Your task to perform on an android device: empty trash in the gmail app Image 0: 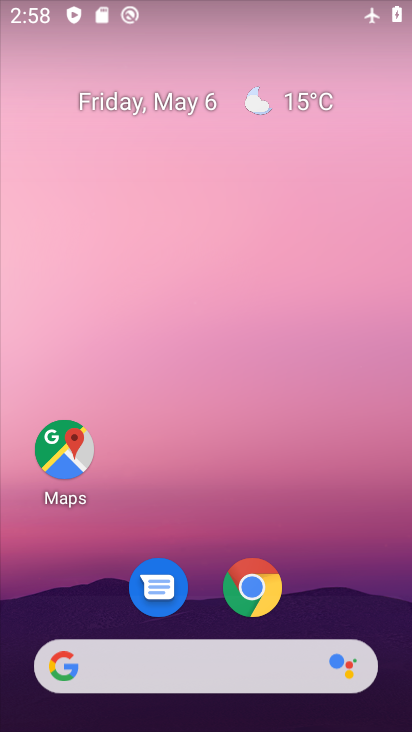
Step 0: press home button
Your task to perform on an android device: empty trash in the gmail app Image 1: 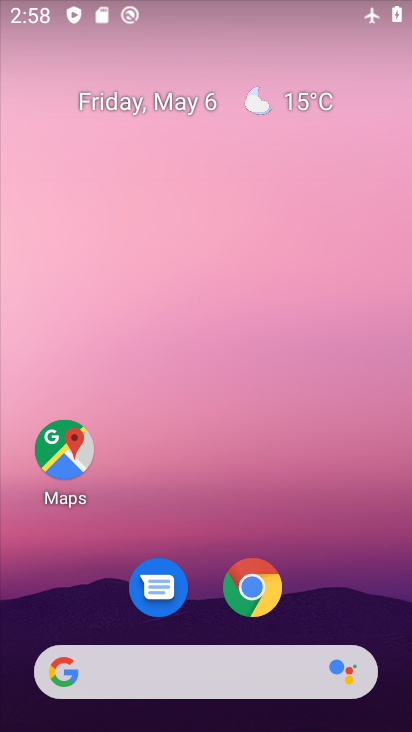
Step 1: drag from (199, 620) to (168, 95)
Your task to perform on an android device: empty trash in the gmail app Image 2: 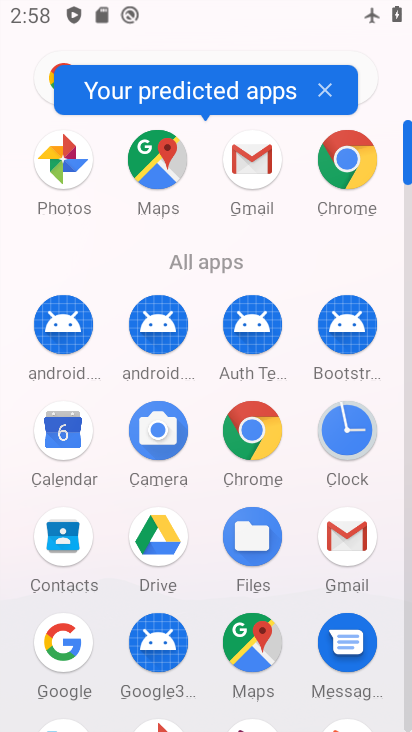
Step 2: click (250, 156)
Your task to perform on an android device: empty trash in the gmail app Image 3: 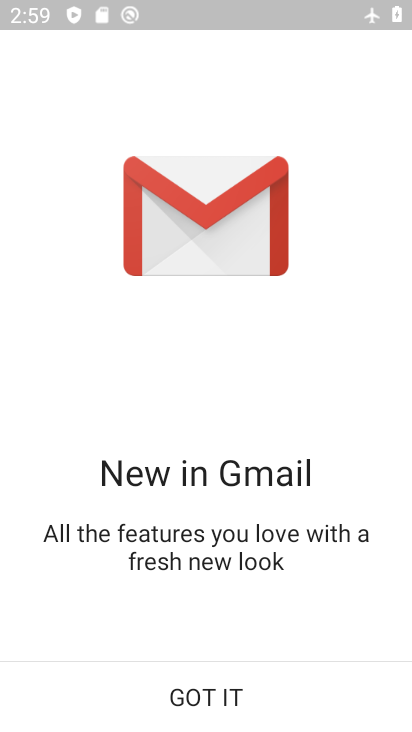
Step 3: click (215, 709)
Your task to perform on an android device: empty trash in the gmail app Image 4: 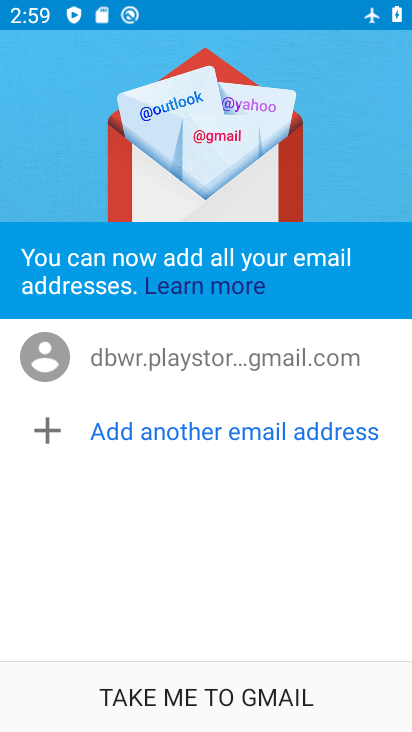
Step 4: click (215, 709)
Your task to perform on an android device: empty trash in the gmail app Image 5: 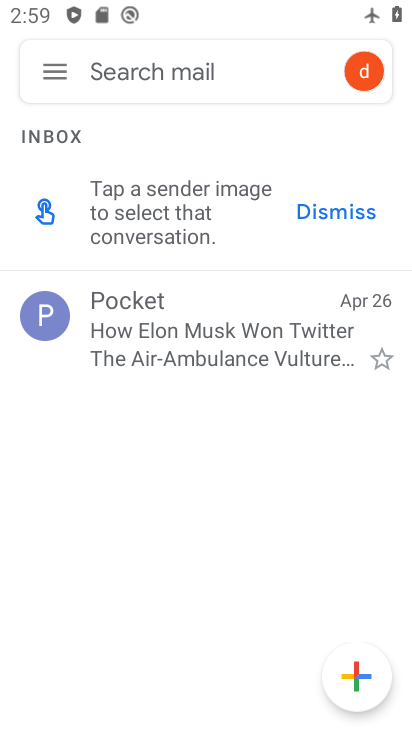
Step 5: click (57, 62)
Your task to perform on an android device: empty trash in the gmail app Image 6: 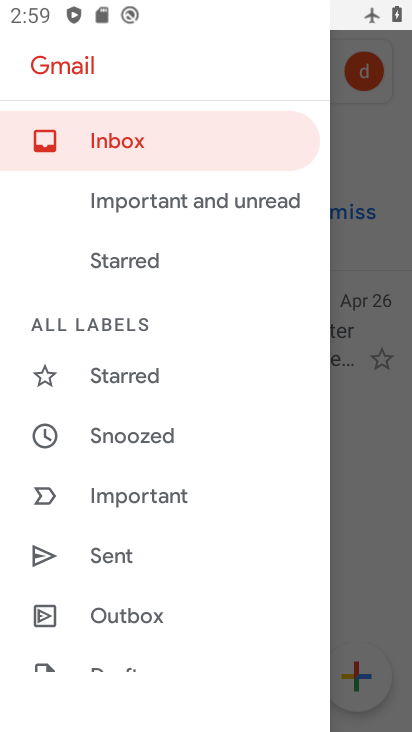
Step 6: drag from (167, 654) to (169, 108)
Your task to perform on an android device: empty trash in the gmail app Image 7: 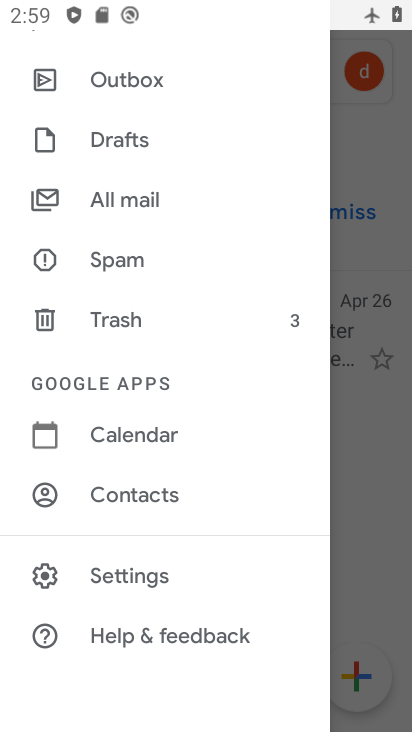
Step 7: click (144, 313)
Your task to perform on an android device: empty trash in the gmail app Image 8: 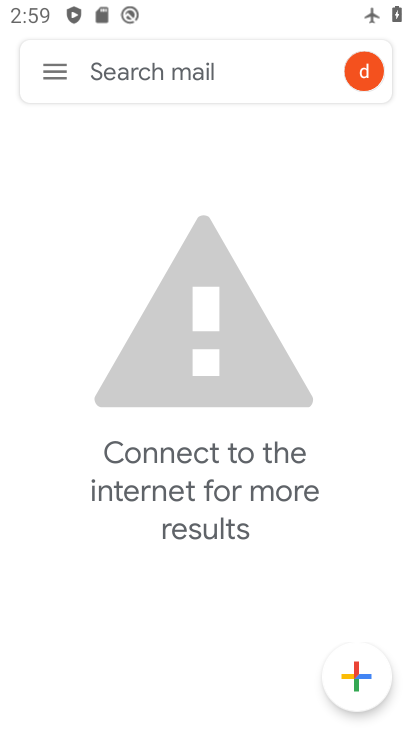
Step 8: click (49, 74)
Your task to perform on an android device: empty trash in the gmail app Image 9: 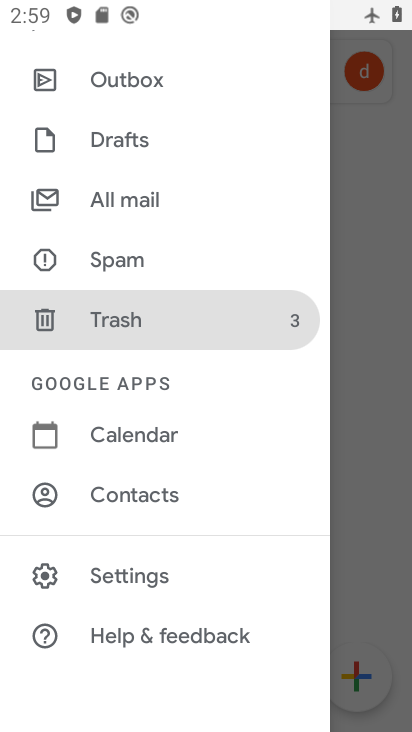
Step 9: click (137, 318)
Your task to perform on an android device: empty trash in the gmail app Image 10: 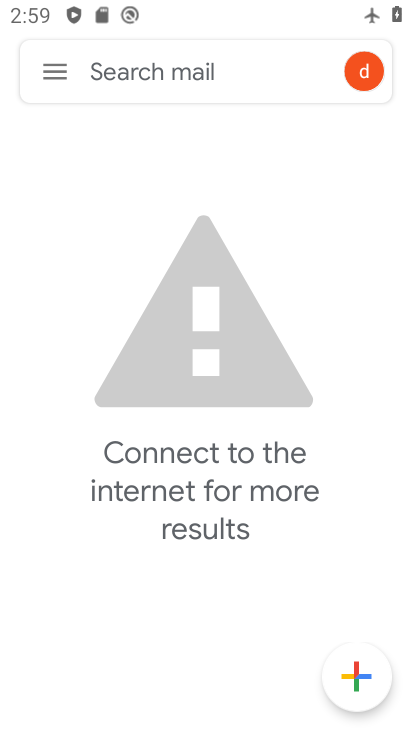
Step 10: task complete